Your task to perform on an android device: open chrome and create a bookmark for the current page Image 0: 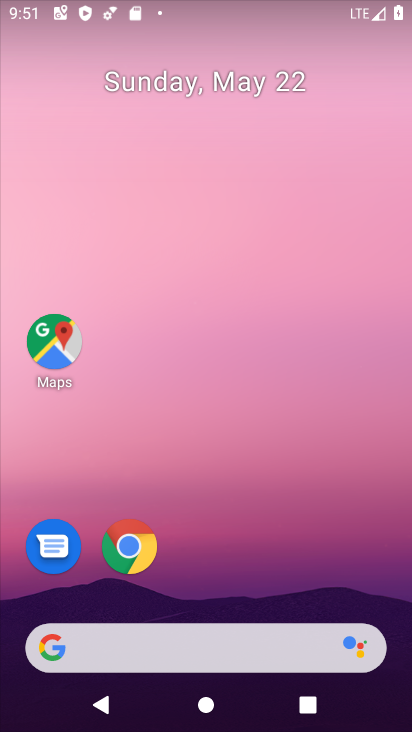
Step 0: drag from (191, 580) to (251, 230)
Your task to perform on an android device: open chrome and create a bookmark for the current page Image 1: 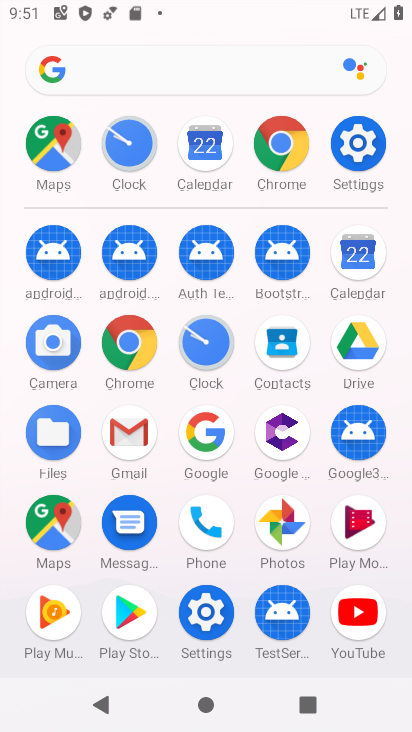
Step 1: click (126, 337)
Your task to perform on an android device: open chrome and create a bookmark for the current page Image 2: 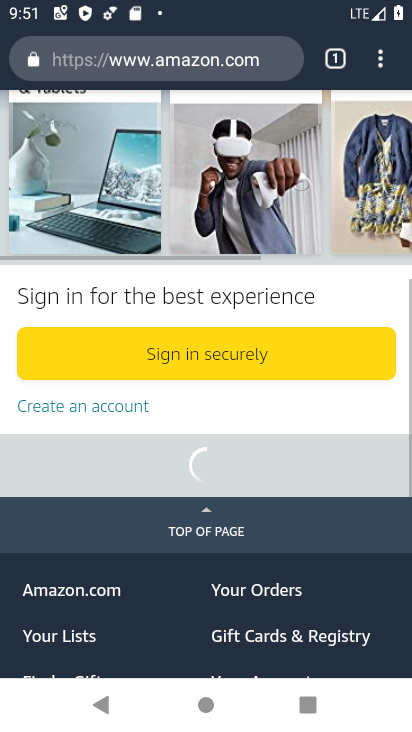
Step 2: click (381, 48)
Your task to perform on an android device: open chrome and create a bookmark for the current page Image 3: 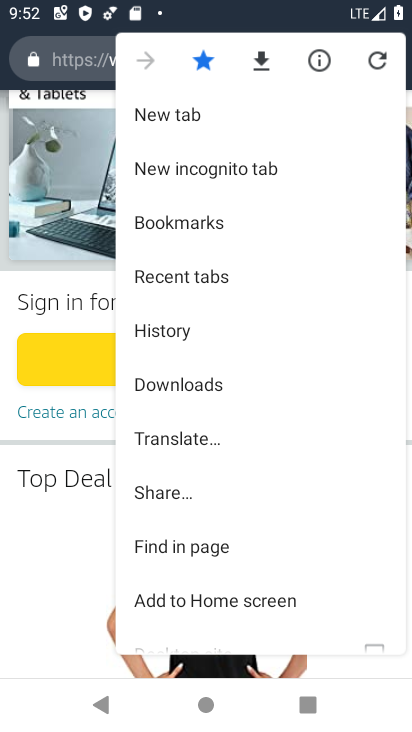
Step 3: task complete